Your task to perform on an android device: Clear the cart on ebay.com. Add usb-c to usb-a to the cart on ebay.com, then select checkout. Image 0: 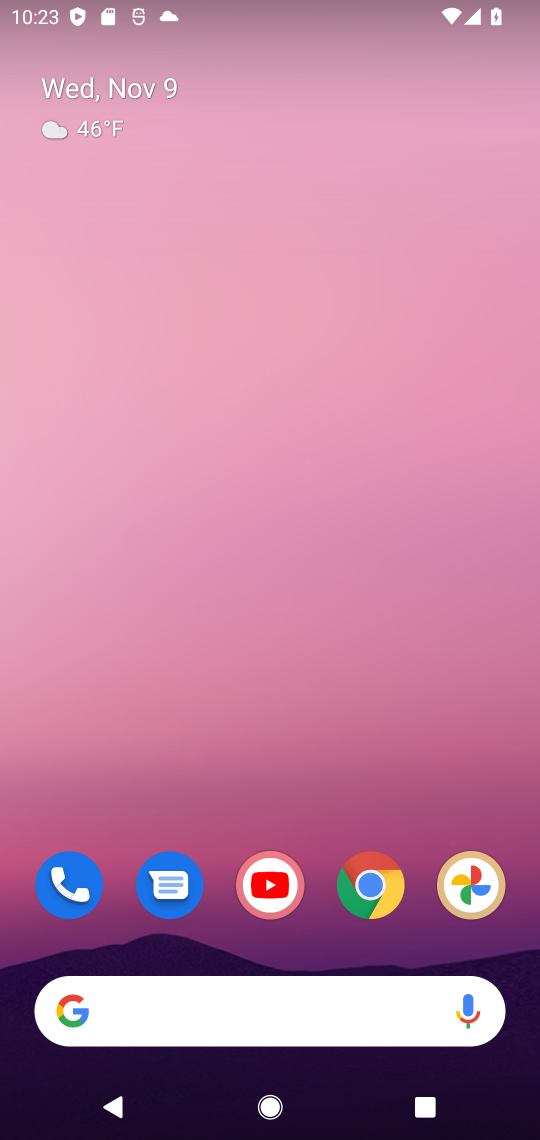
Step 0: click (376, 883)
Your task to perform on an android device: Clear the cart on ebay.com. Add usb-c to usb-a to the cart on ebay.com, then select checkout. Image 1: 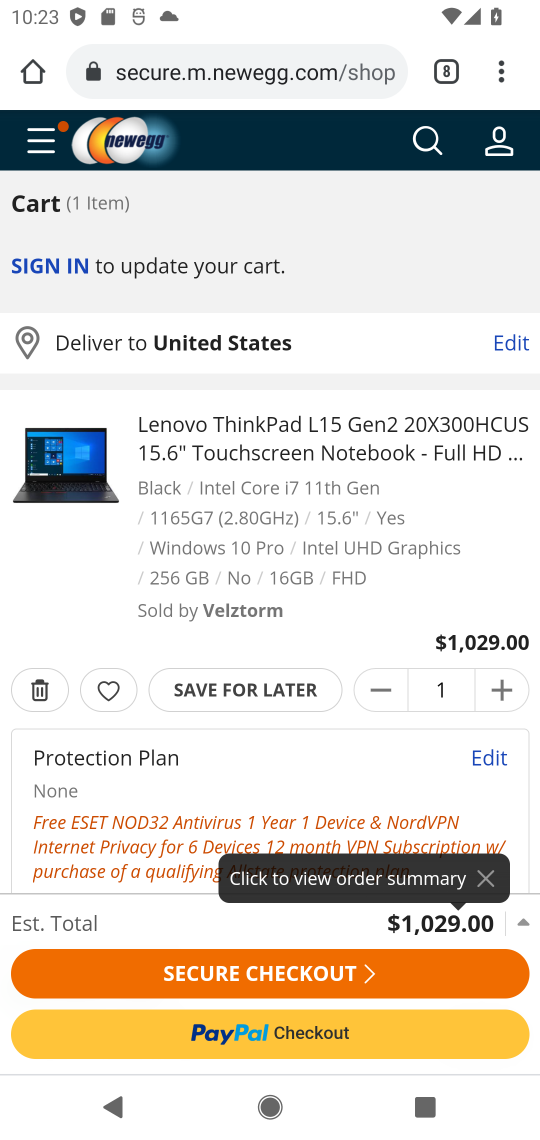
Step 1: click (443, 77)
Your task to perform on an android device: Clear the cart on ebay.com. Add usb-c to usb-a to the cart on ebay.com, then select checkout. Image 2: 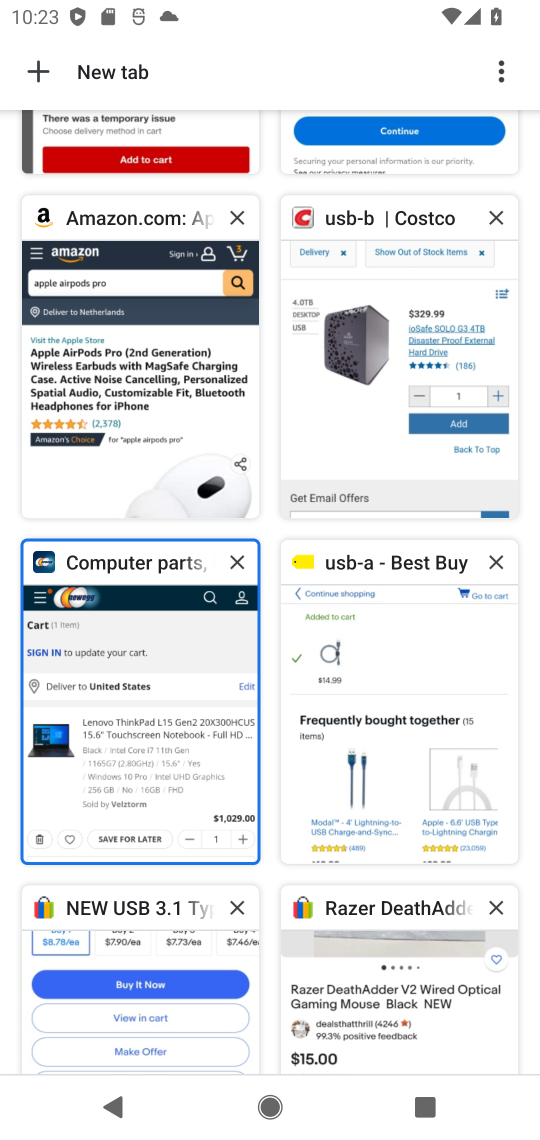
Step 2: click (236, 914)
Your task to perform on an android device: Clear the cart on ebay.com. Add usb-c to usb-a to the cart on ebay.com, then select checkout. Image 3: 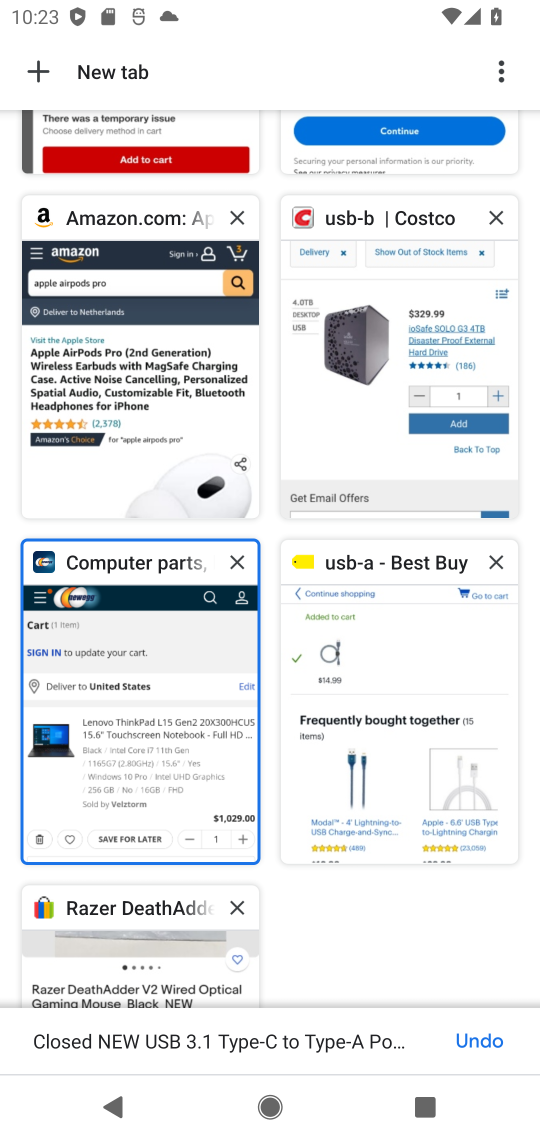
Step 3: click (180, 956)
Your task to perform on an android device: Clear the cart on ebay.com. Add usb-c to usb-a to the cart on ebay.com, then select checkout. Image 4: 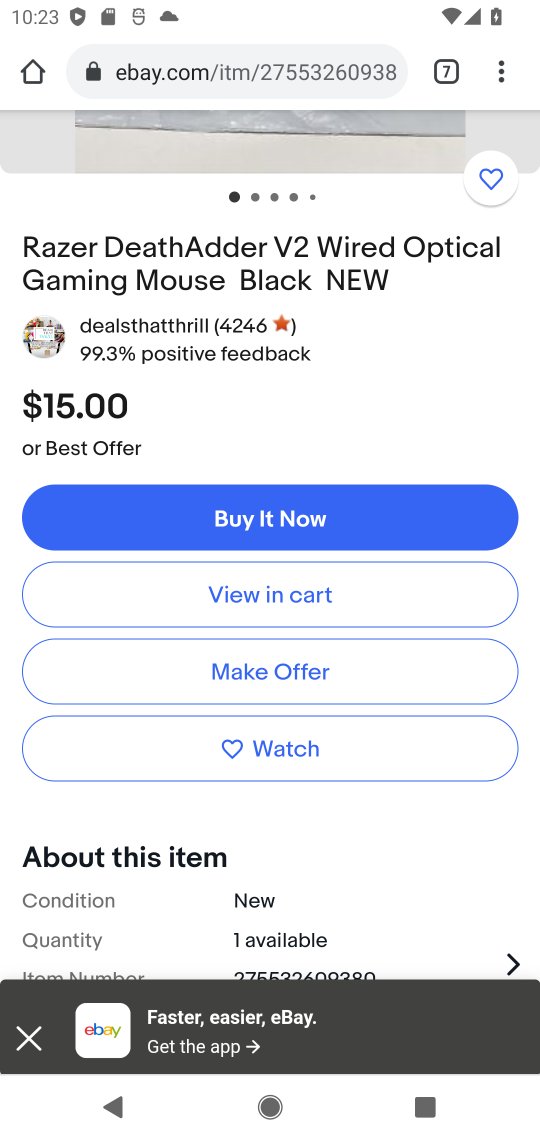
Step 4: drag from (355, 372) to (139, 928)
Your task to perform on an android device: Clear the cart on ebay.com. Add usb-c to usb-a to the cart on ebay.com, then select checkout. Image 5: 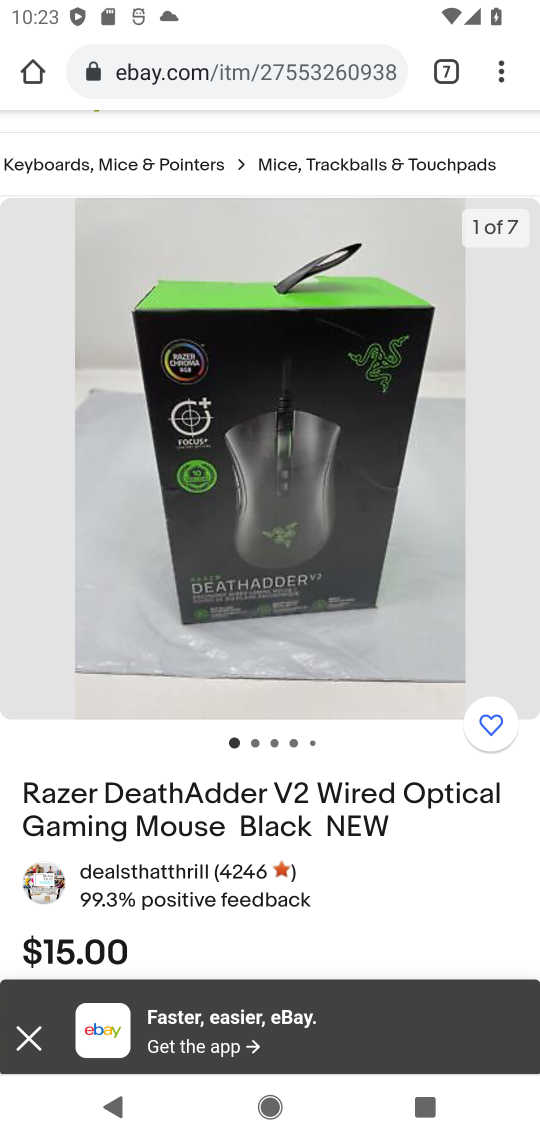
Step 5: drag from (447, 125) to (363, 561)
Your task to perform on an android device: Clear the cart on ebay.com. Add usb-c to usb-a to the cart on ebay.com, then select checkout. Image 6: 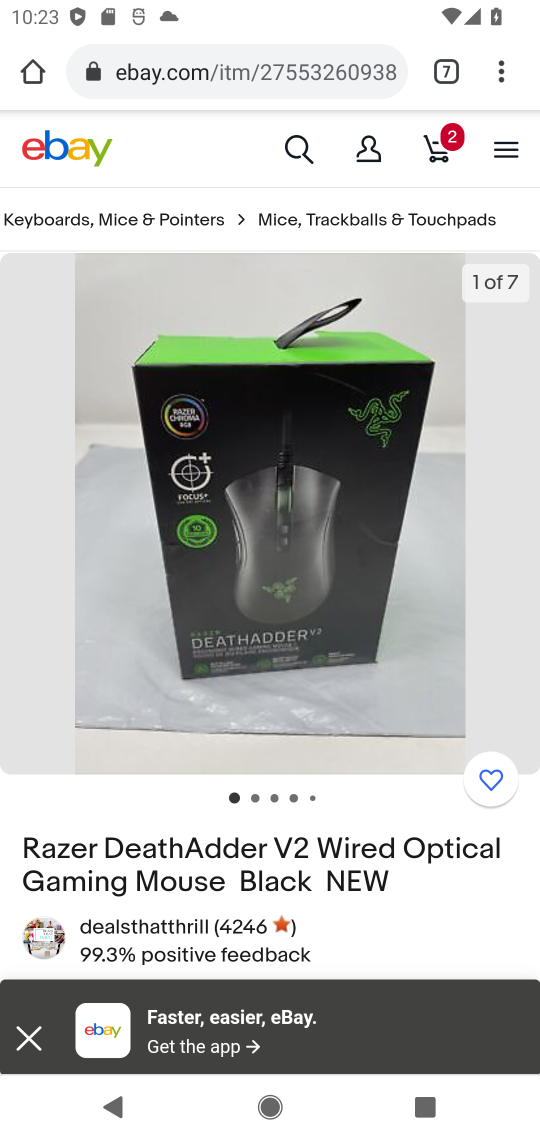
Step 6: click (445, 135)
Your task to perform on an android device: Clear the cart on ebay.com. Add usb-c to usb-a to the cart on ebay.com, then select checkout. Image 7: 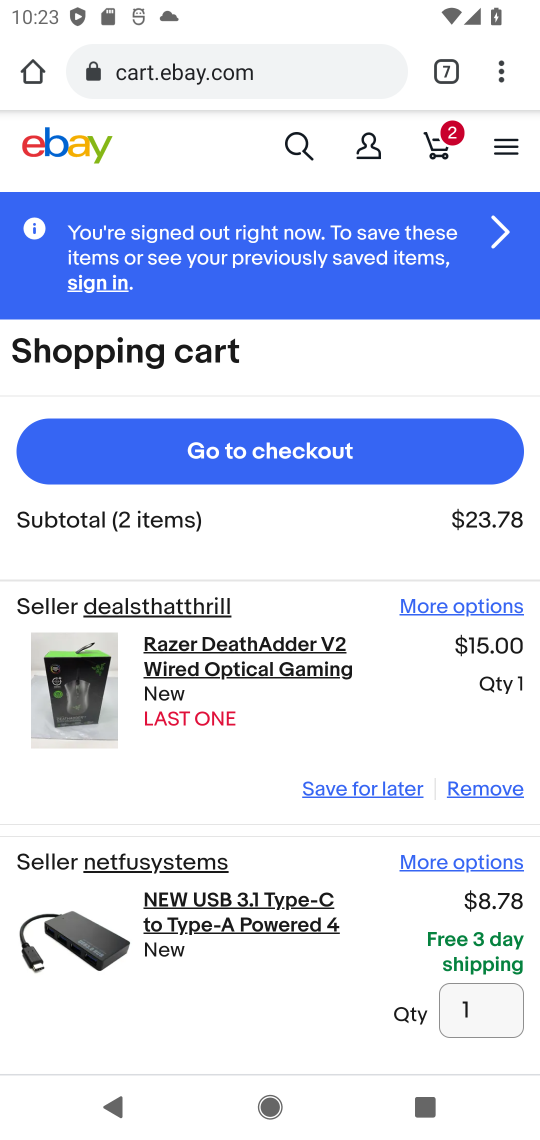
Step 7: click (471, 785)
Your task to perform on an android device: Clear the cart on ebay.com. Add usb-c to usb-a to the cart on ebay.com, then select checkout. Image 8: 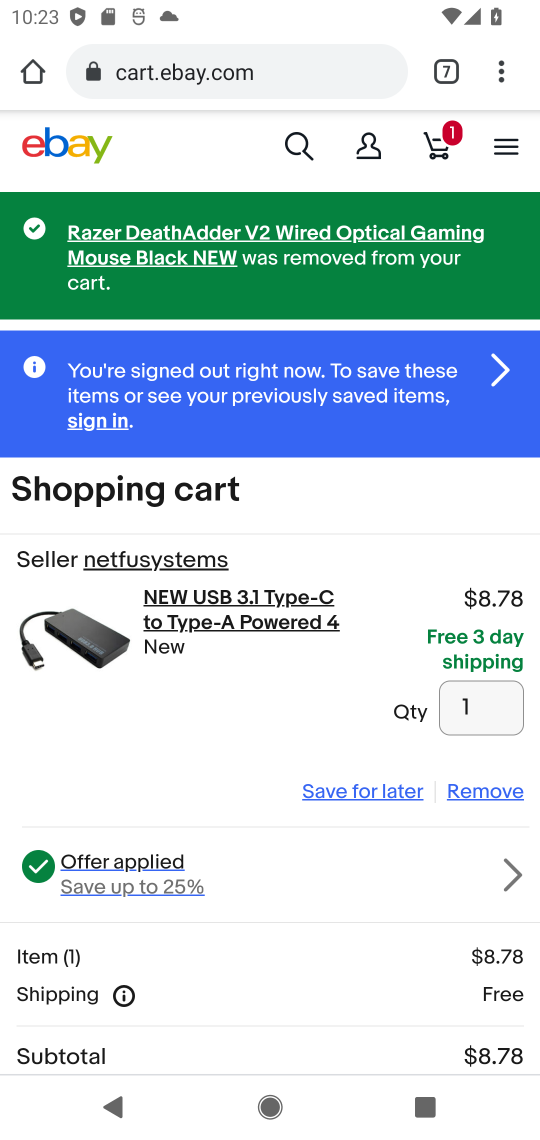
Step 8: click (471, 785)
Your task to perform on an android device: Clear the cart on ebay.com. Add usb-c to usb-a to the cart on ebay.com, then select checkout. Image 9: 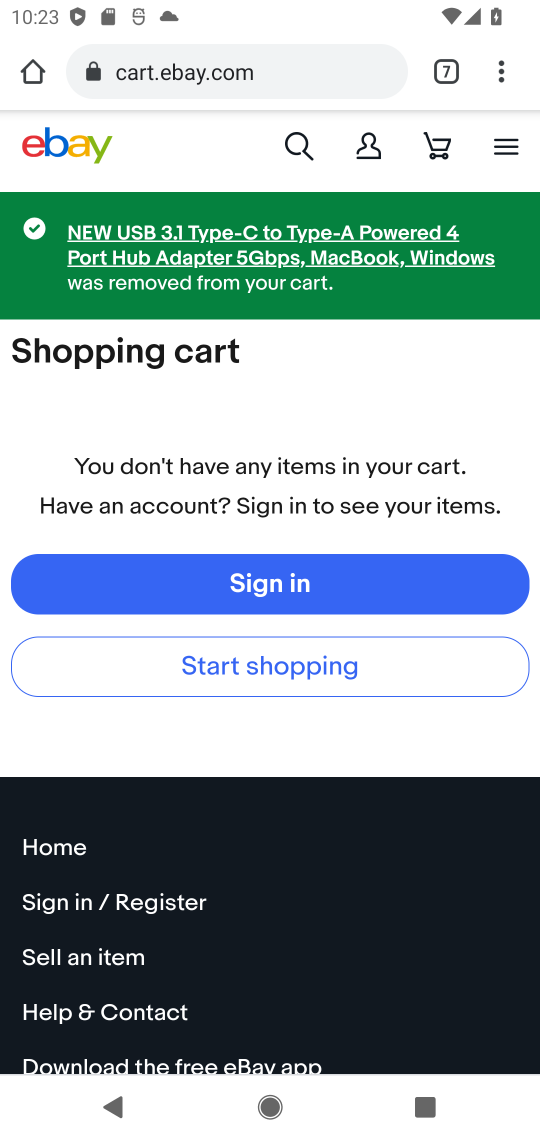
Step 9: click (294, 145)
Your task to perform on an android device: Clear the cart on ebay.com. Add usb-c to usb-a to the cart on ebay.com, then select checkout. Image 10: 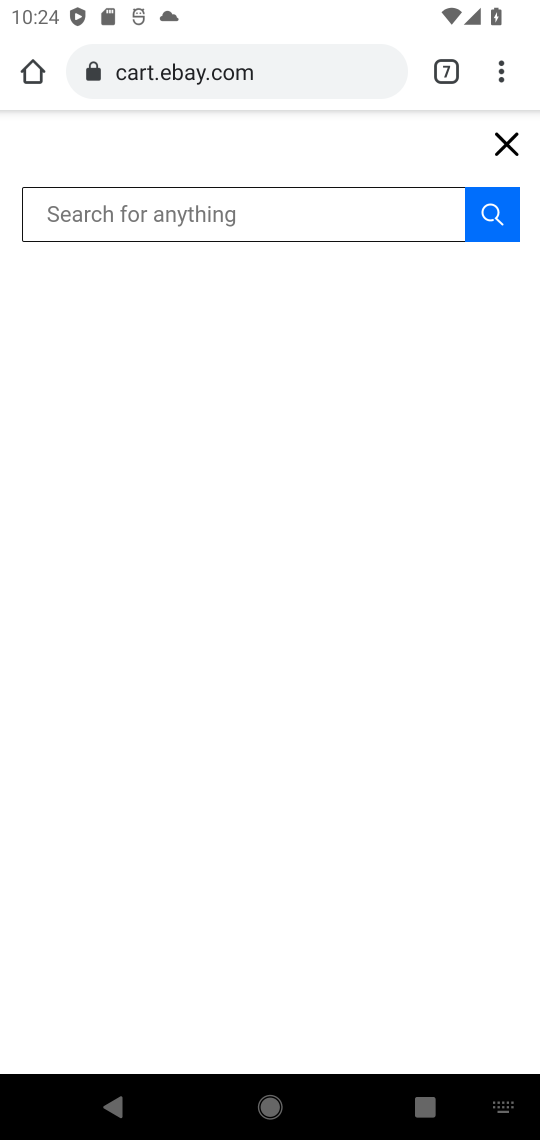
Step 10: type "usb-c to usb-a"
Your task to perform on an android device: Clear the cart on ebay.com. Add usb-c to usb-a to the cart on ebay.com, then select checkout. Image 11: 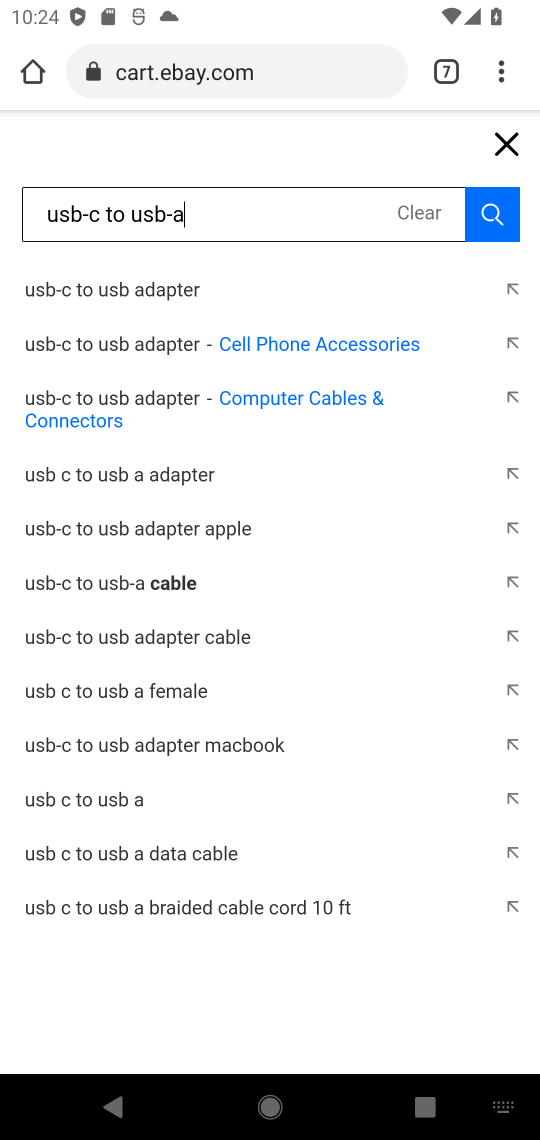
Step 11: click (142, 584)
Your task to perform on an android device: Clear the cart on ebay.com. Add usb-c to usb-a to the cart on ebay.com, then select checkout. Image 12: 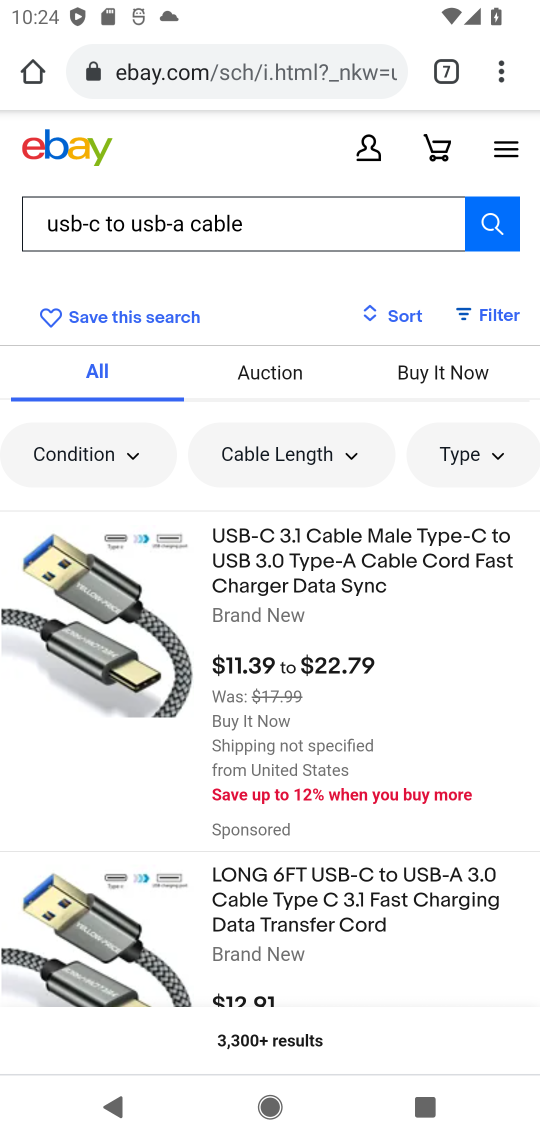
Step 12: click (314, 573)
Your task to perform on an android device: Clear the cart on ebay.com. Add usb-c to usb-a to the cart on ebay.com, then select checkout. Image 13: 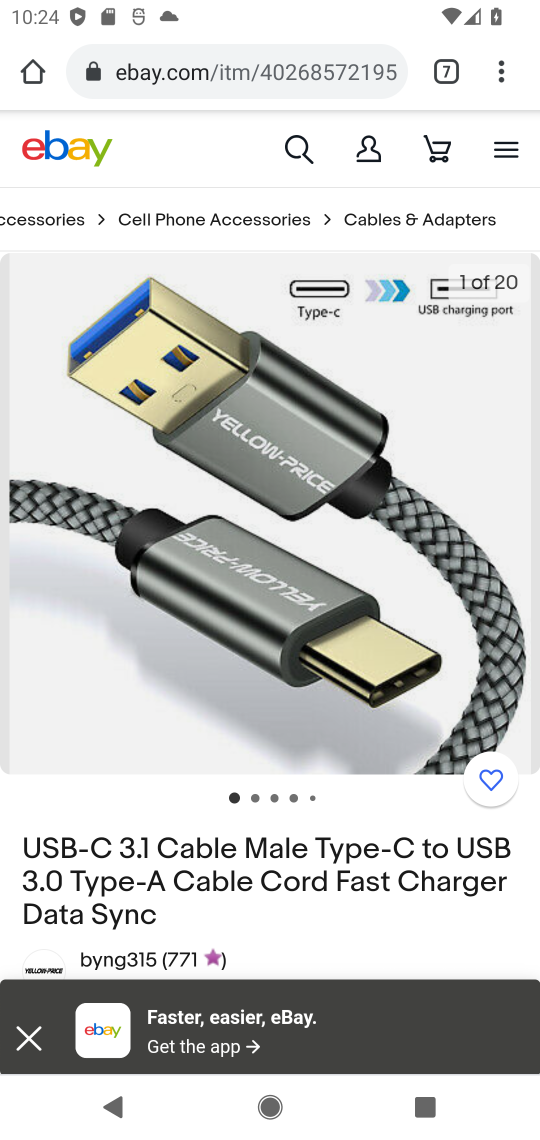
Step 13: drag from (263, 964) to (238, 338)
Your task to perform on an android device: Clear the cart on ebay.com. Add usb-c to usb-a to the cart on ebay.com, then select checkout. Image 14: 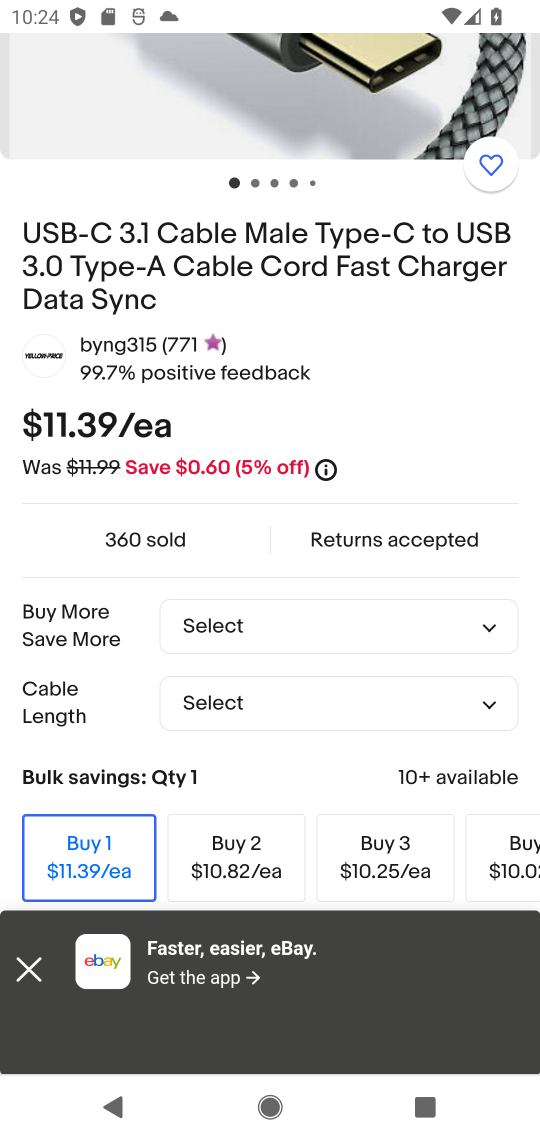
Step 14: drag from (306, 669) to (382, 48)
Your task to perform on an android device: Clear the cart on ebay.com. Add usb-c to usb-a to the cart on ebay.com, then select checkout. Image 15: 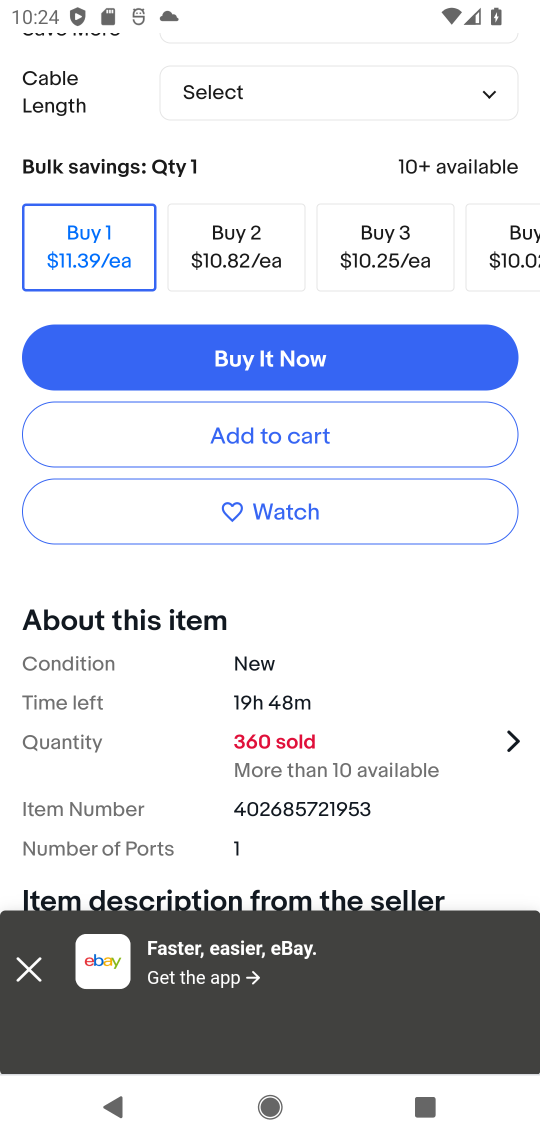
Step 15: click (259, 430)
Your task to perform on an android device: Clear the cart on ebay.com. Add usb-c to usb-a to the cart on ebay.com, then select checkout. Image 16: 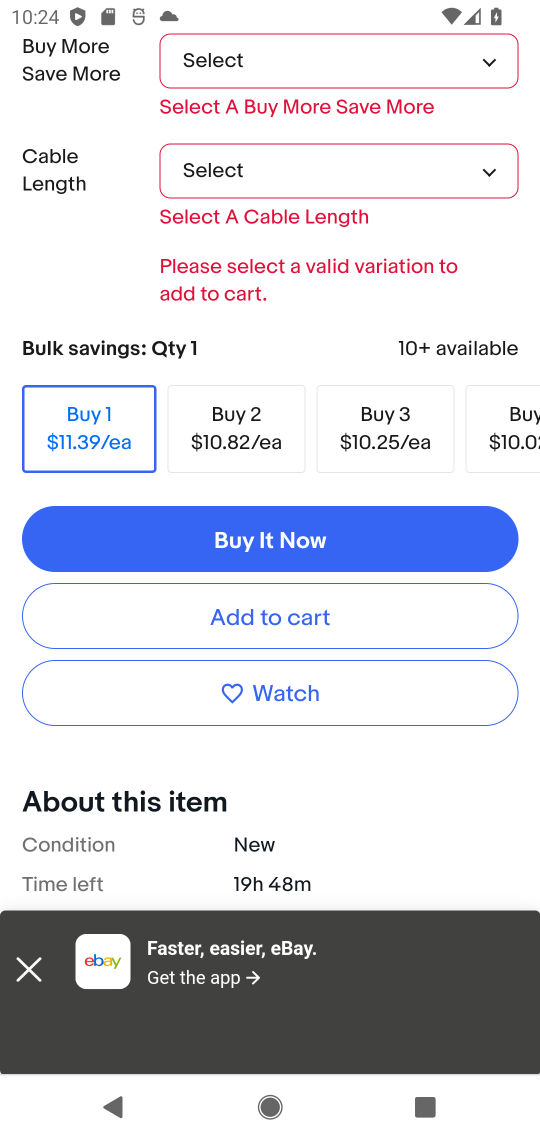
Step 16: click (491, 56)
Your task to perform on an android device: Clear the cart on ebay.com. Add usb-c to usb-a to the cart on ebay.com, then select checkout. Image 17: 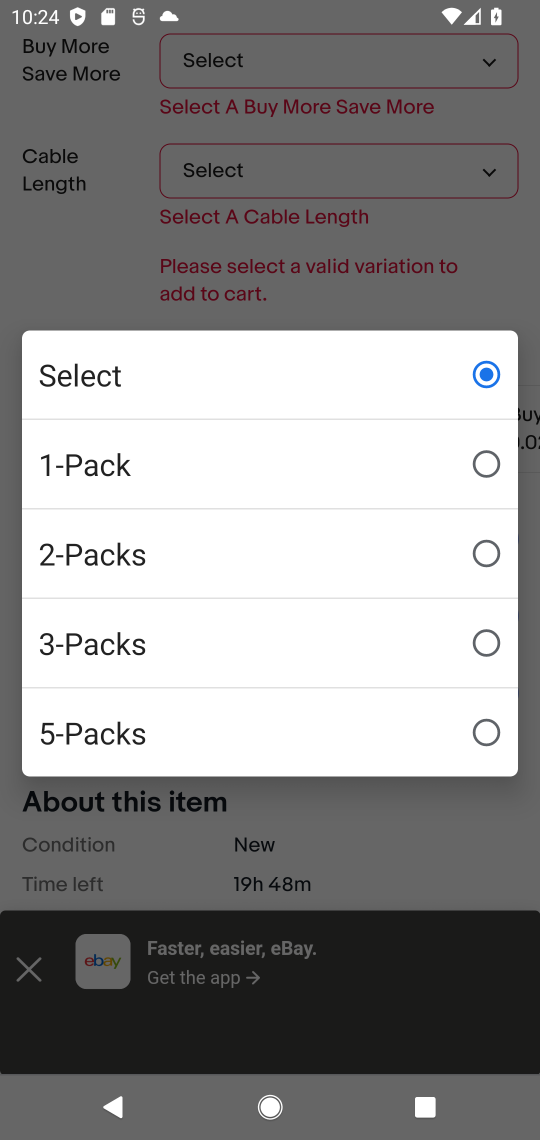
Step 17: click (485, 461)
Your task to perform on an android device: Clear the cart on ebay.com. Add usb-c to usb-a to the cart on ebay.com, then select checkout. Image 18: 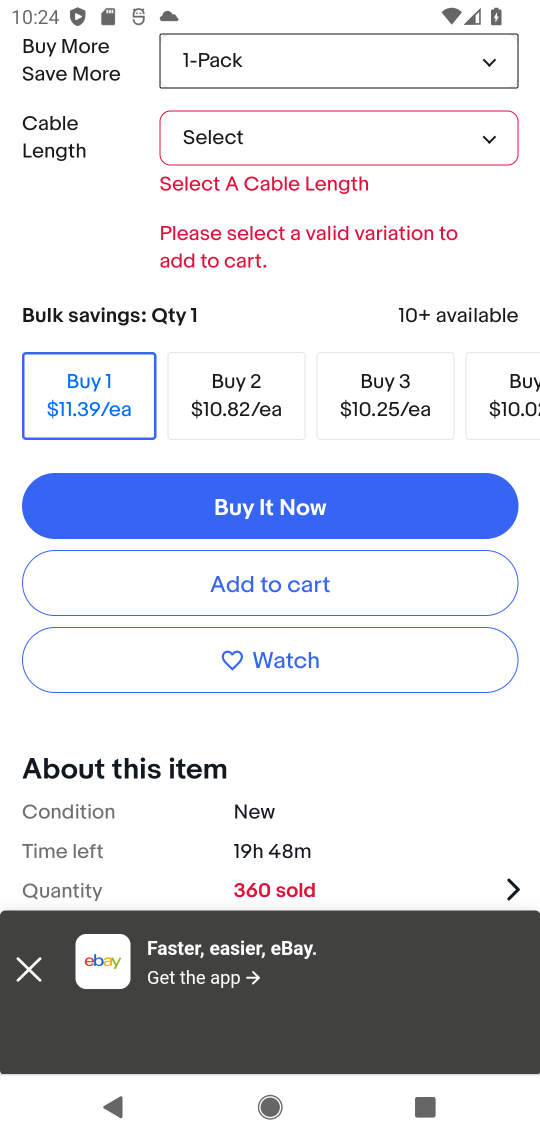
Step 18: click (493, 137)
Your task to perform on an android device: Clear the cart on ebay.com. Add usb-c to usb-a to the cart on ebay.com, then select checkout. Image 19: 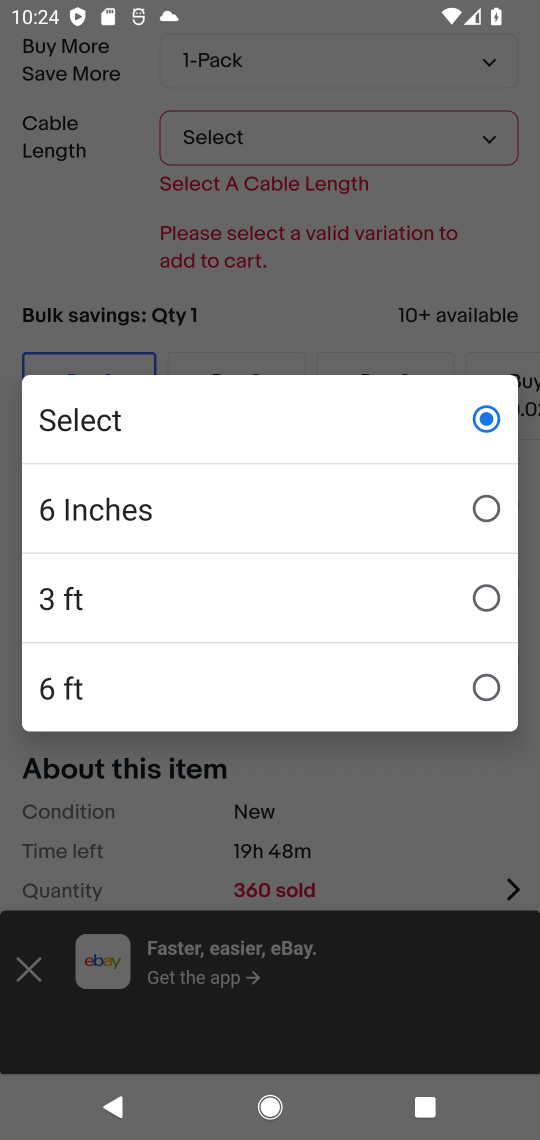
Step 19: click (478, 496)
Your task to perform on an android device: Clear the cart on ebay.com. Add usb-c to usb-a to the cart on ebay.com, then select checkout. Image 20: 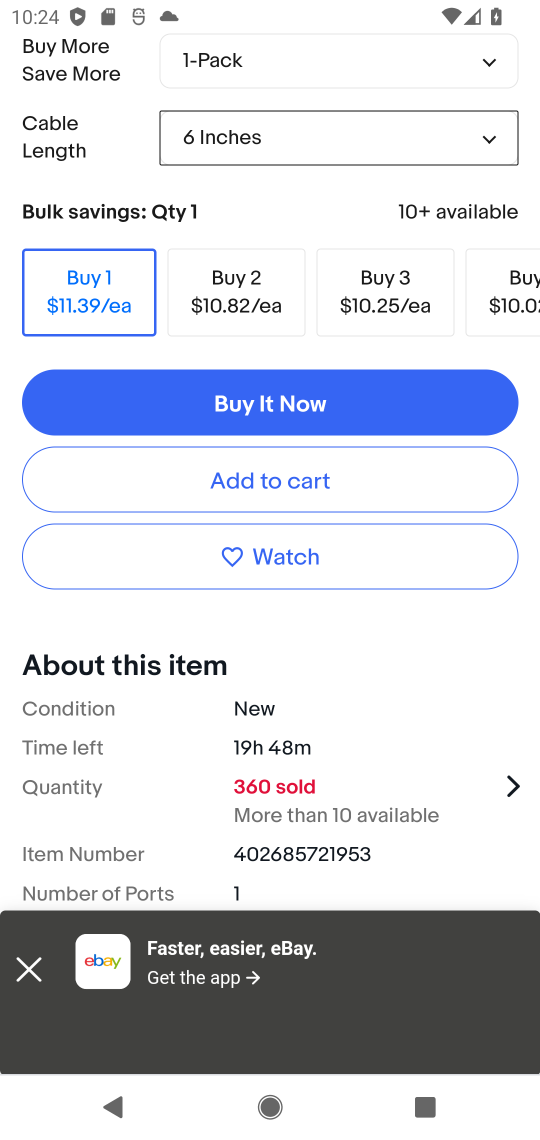
Step 20: click (394, 481)
Your task to perform on an android device: Clear the cart on ebay.com. Add usb-c to usb-a to the cart on ebay.com, then select checkout. Image 21: 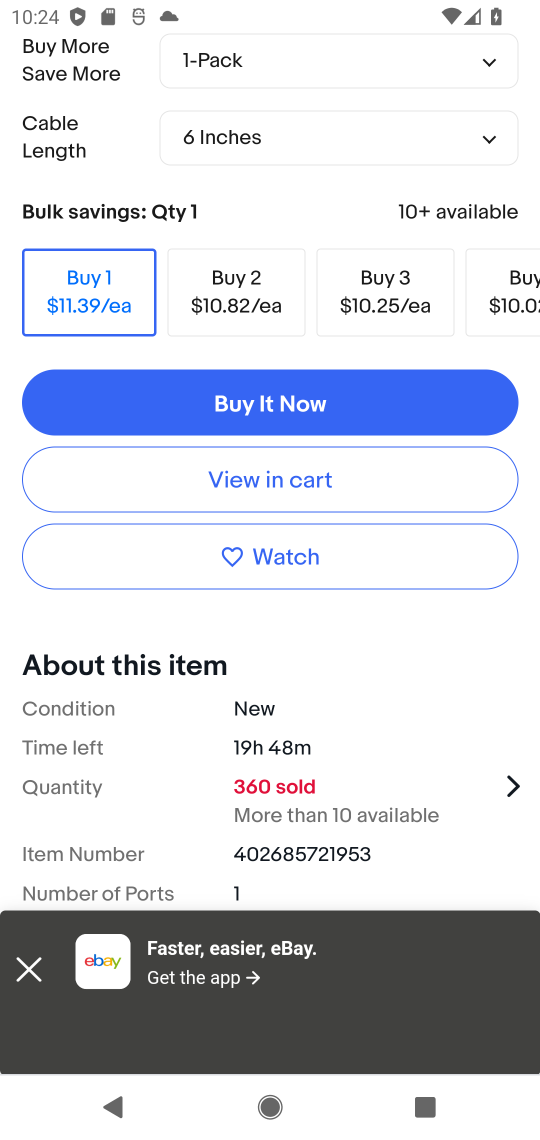
Step 21: click (394, 481)
Your task to perform on an android device: Clear the cart on ebay.com. Add usb-c to usb-a to the cart on ebay.com, then select checkout. Image 22: 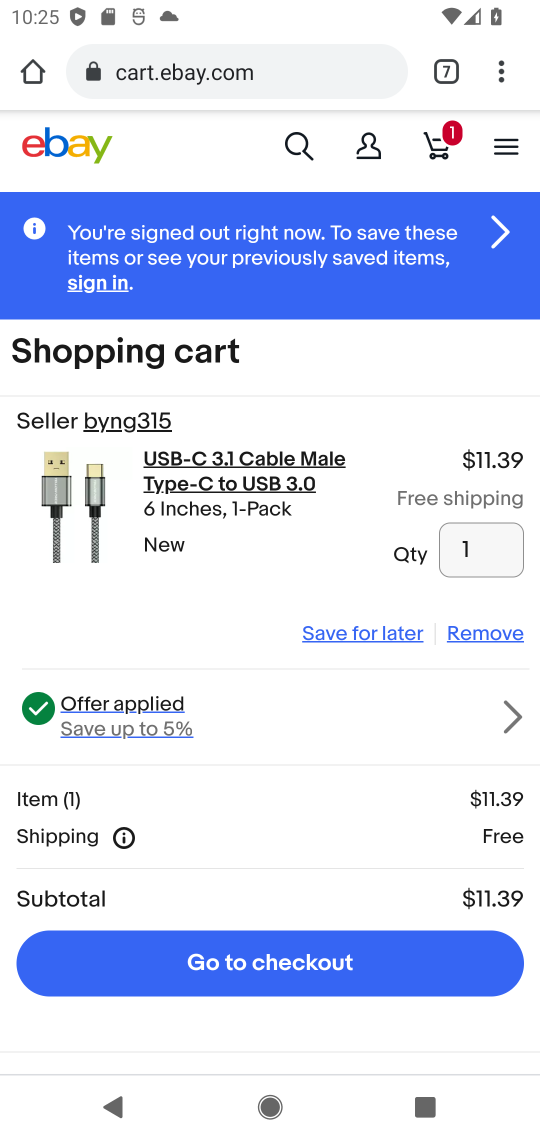
Step 22: click (311, 954)
Your task to perform on an android device: Clear the cart on ebay.com. Add usb-c to usb-a to the cart on ebay.com, then select checkout. Image 23: 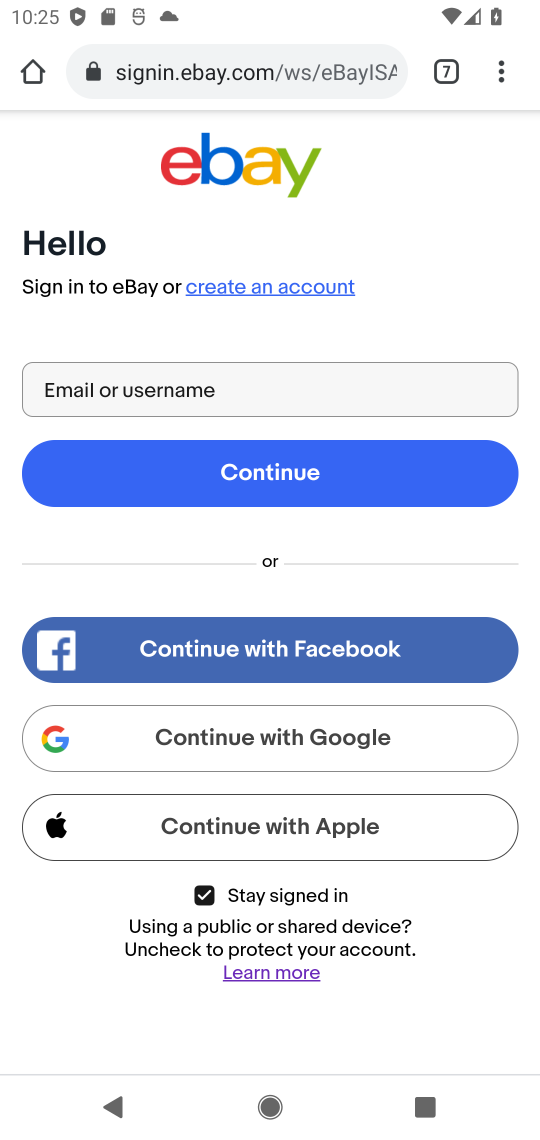
Step 23: task complete